Your task to perform on an android device: open app "Viber Messenger" (install if not already installed) and go to login screen Image 0: 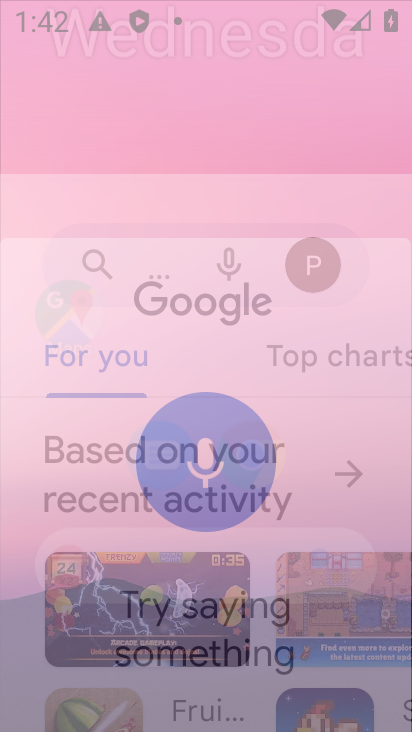
Step 0: press back button
Your task to perform on an android device: open app "Viber Messenger" (install if not already installed) and go to login screen Image 1: 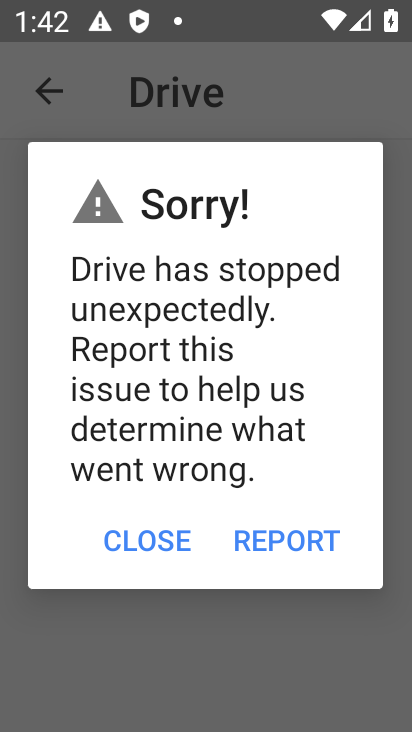
Step 1: press home button
Your task to perform on an android device: open app "Viber Messenger" (install if not already installed) and go to login screen Image 2: 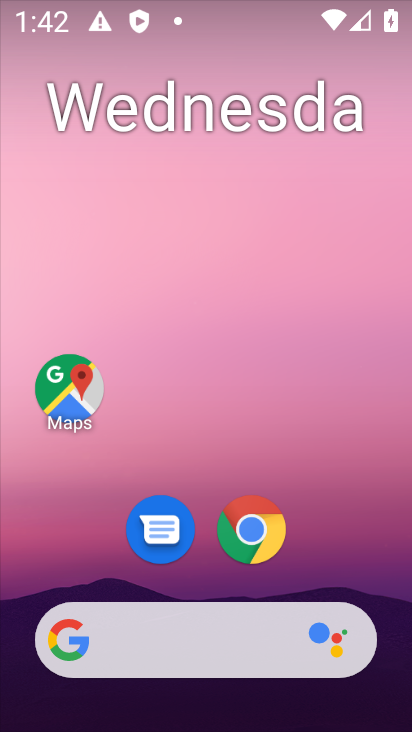
Step 2: drag from (193, 629) to (57, 69)
Your task to perform on an android device: open app "Viber Messenger" (install if not already installed) and go to login screen Image 3: 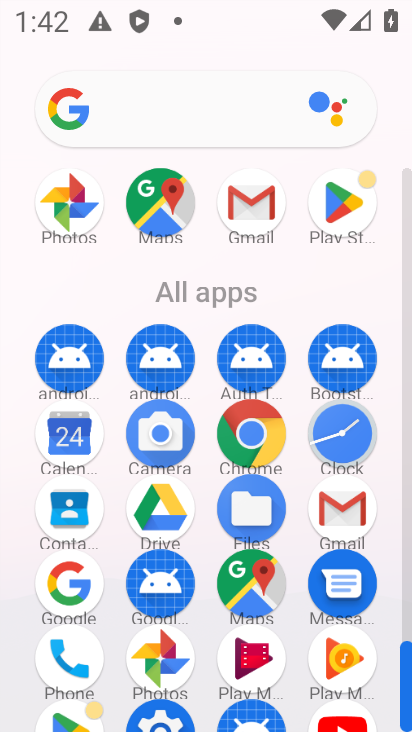
Step 3: click (344, 213)
Your task to perform on an android device: open app "Viber Messenger" (install if not already installed) and go to login screen Image 4: 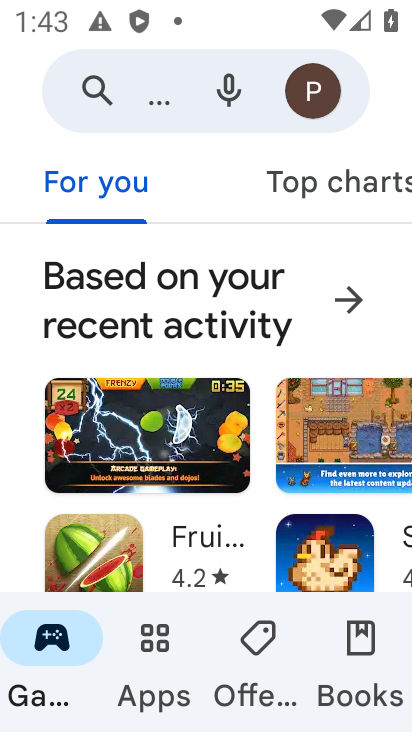
Step 4: click (167, 91)
Your task to perform on an android device: open app "Viber Messenger" (install if not already installed) and go to login screen Image 5: 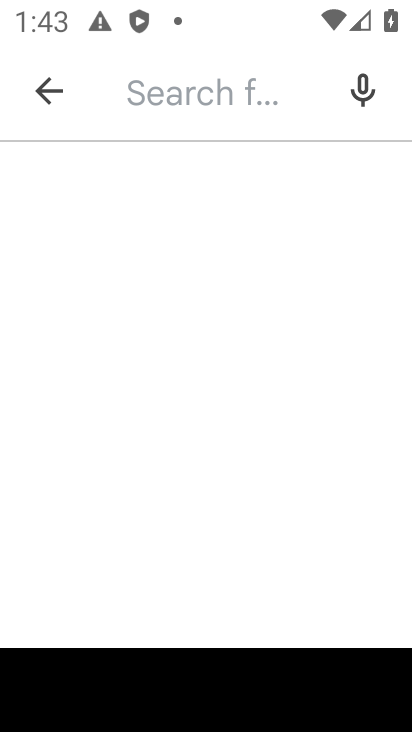
Step 5: type "viber messenger"
Your task to perform on an android device: open app "Viber Messenger" (install if not already installed) and go to login screen Image 6: 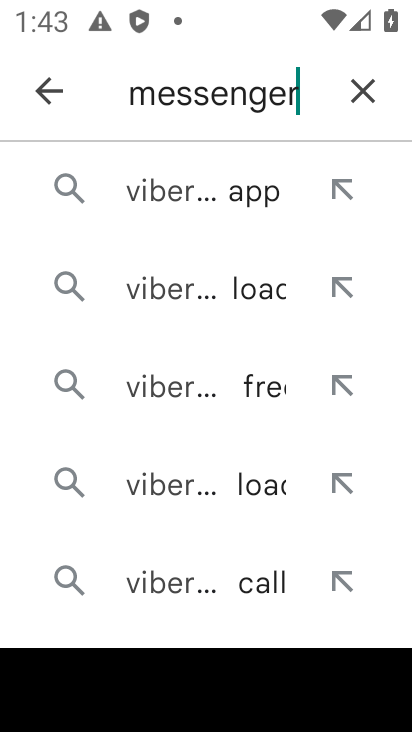
Step 6: click (196, 204)
Your task to perform on an android device: open app "Viber Messenger" (install if not already installed) and go to login screen Image 7: 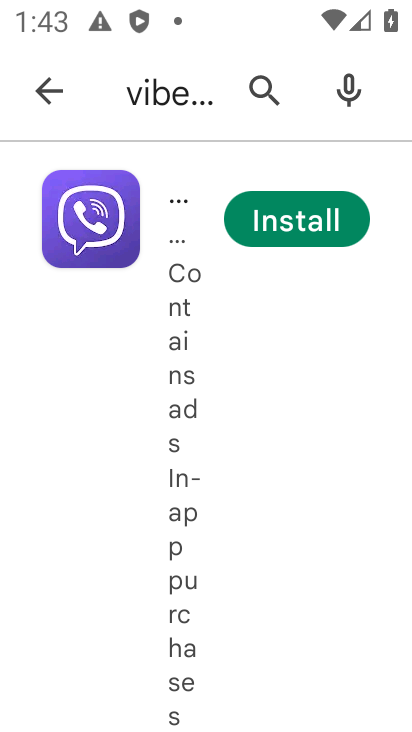
Step 7: click (295, 213)
Your task to perform on an android device: open app "Viber Messenger" (install if not already installed) and go to login screen Image 8: 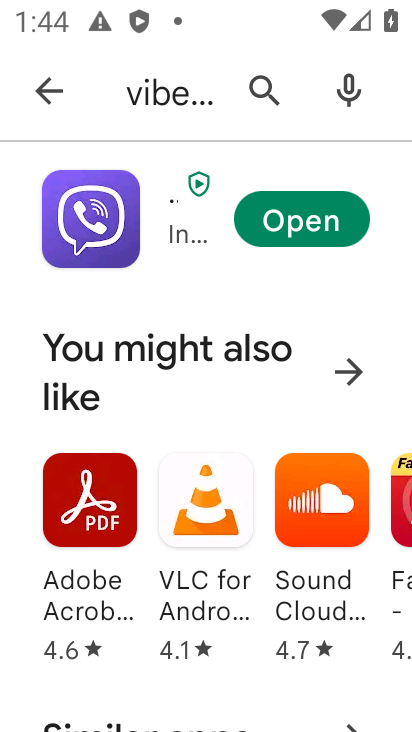
Step 8: click (288, 231)
Your task to perform on an android device: open app "Viber Messenger" (install if not already installed) and go to login screen Image 9: 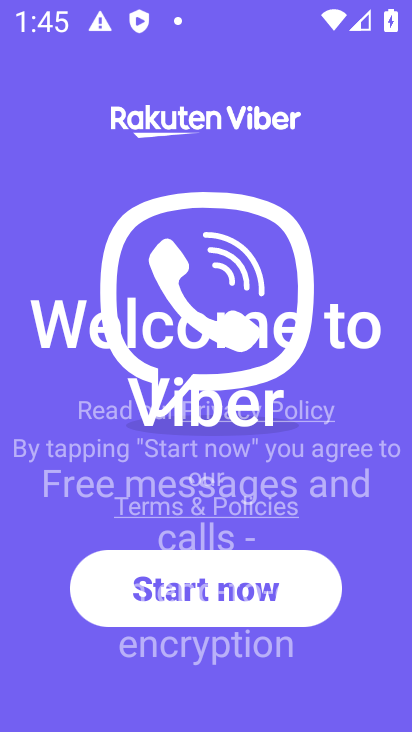
Step 9: click (269, 575)
Your task to perform on an android device: open app "Viber Messenger" (install if not already installed) and go to login screen Image 10: 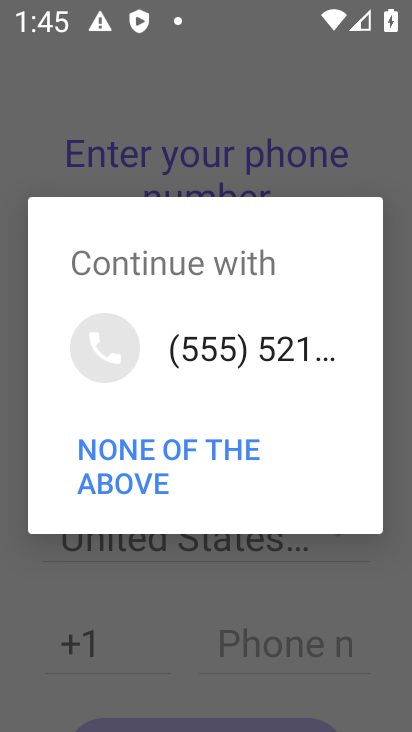
Step 10: task complete